Your task to perform on an android device: turn off data saver in the chrome app Image 0: 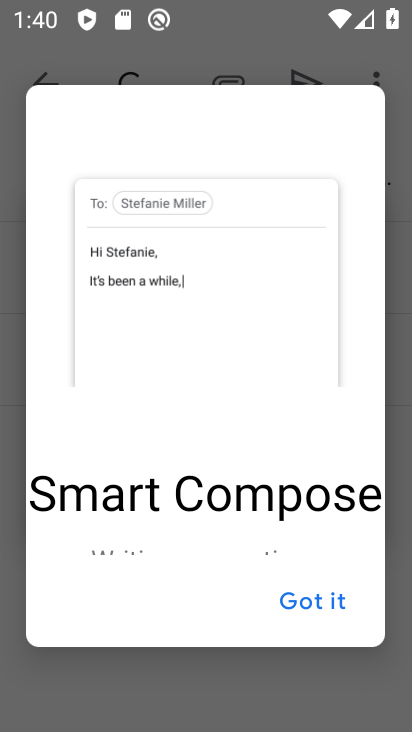
Step 0: press home button
Your task to perform on an android device: turn off data saver in the chrome app Image 1: 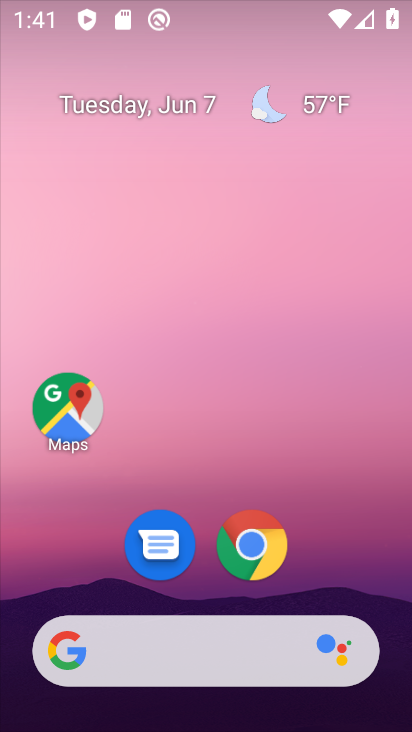
Step 1: click (272, 526)
Your task to perform on an android device: turn off data saver in the chrome app Image 2: 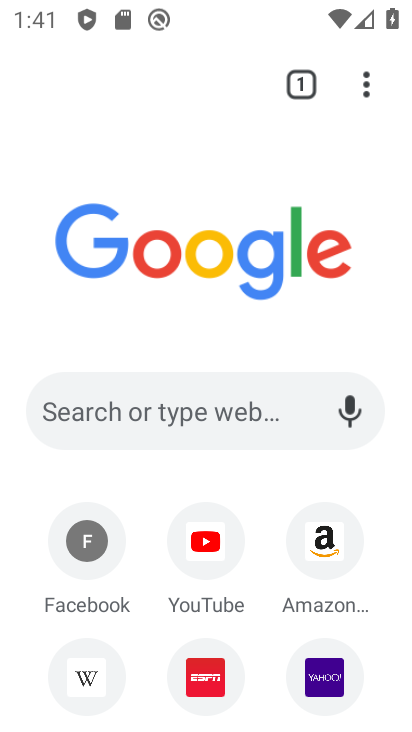
Step 2: click (357, 79)
Your task to perform on an android device: turn off data saver in the chrome app Image 3: 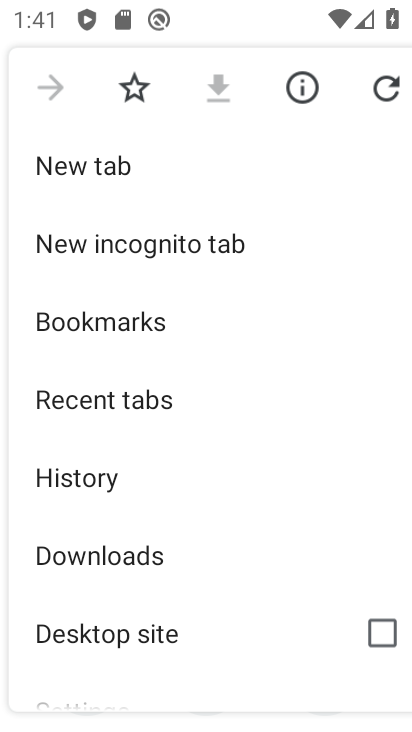
Step 3: drag from (230, 563) to (204, 246)
Your task to perform on an android device: turn off data saver in the chrome app Image 4: 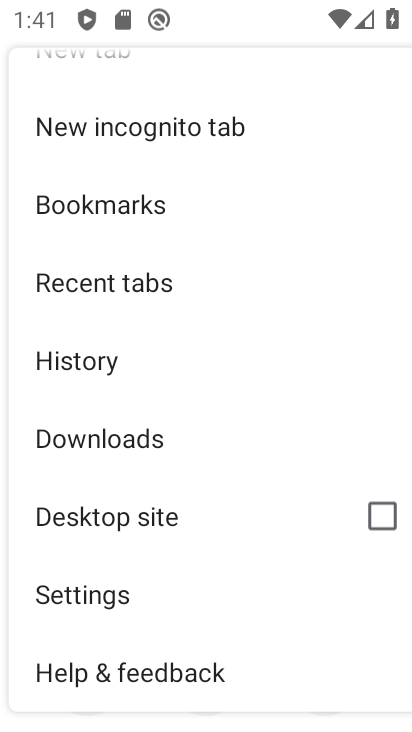
Step 4: drag from (256, 594) to (226, 355)
Your task to perform on an android device: turn off data saver in the chrome app Image 5: 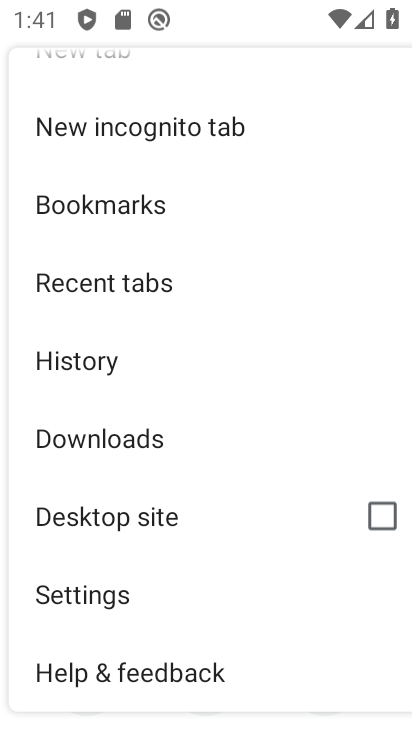
Step 5: click (167, 613)
Your task to perform on an android device: turn off data saver in the chrome app Image 6: 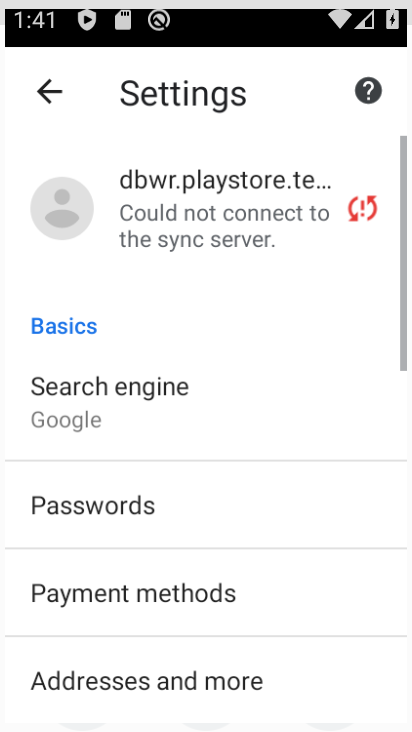
Step 6: drag from (267, 661) to (301, 245)
Your task to perform on an android device: turn off data saver in the chrome app Image 7: 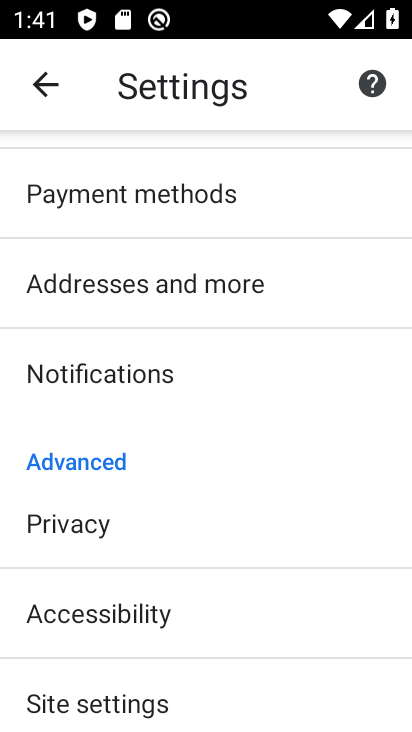
Step 7: drag from (248, 598) to (277, 195)
Your task to perform on an android device: turn off data saver in the chrome app Image 8: 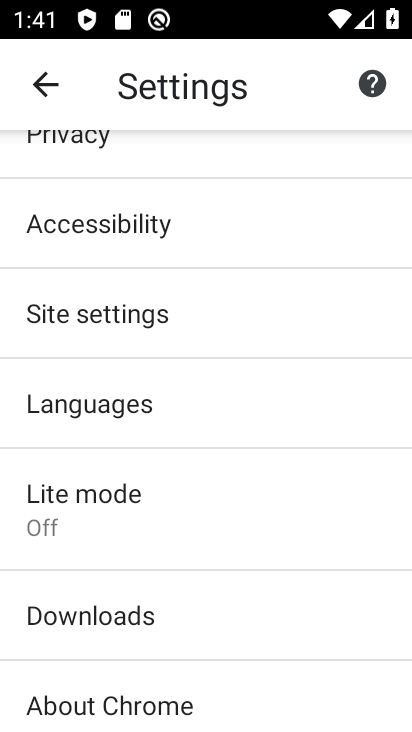
Step 8: click (171, 511)
Your task to perform on an android device: turn off data saver in the chrome app Image 9: 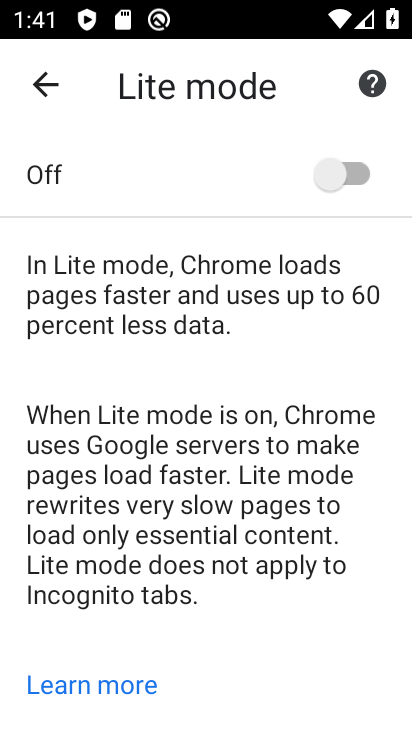
Step 9: task complete